Your task to perform on an android device: Do I have any events this weekend? Image 0: 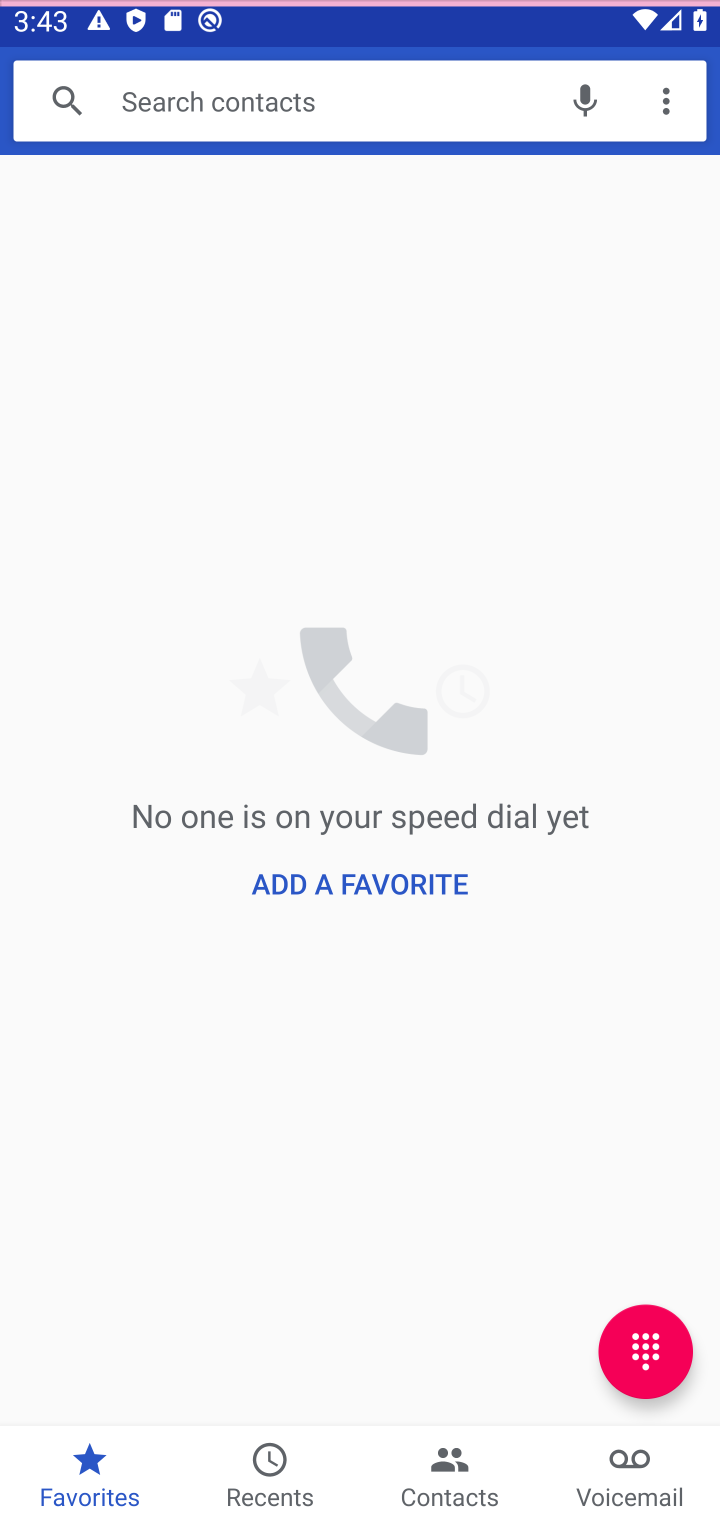
Step 0: press back button
Your task to perform on an android device: Do I have any events this weekend? Image 1: 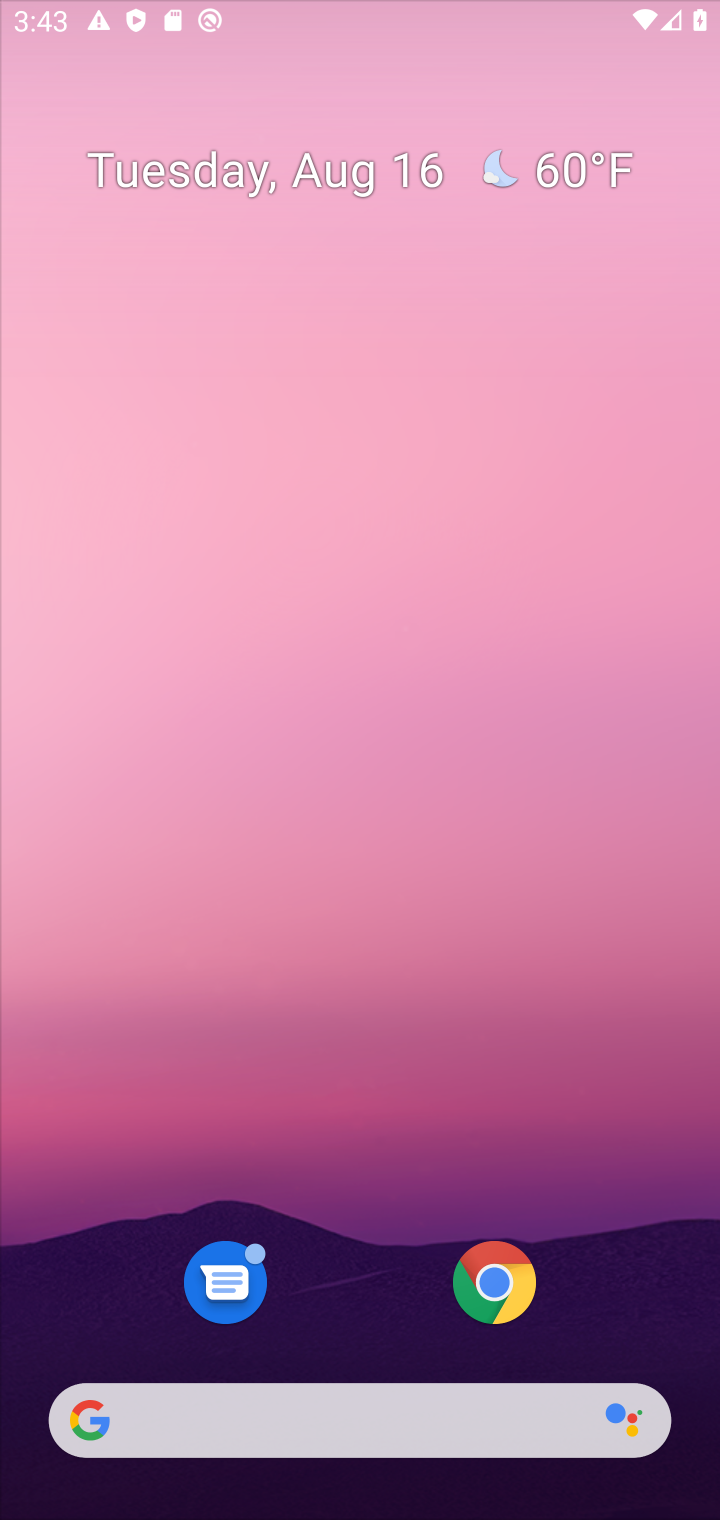
Step 1: press back button
Your task to perform on an android device: Do I have any events this weekend? Image 2: 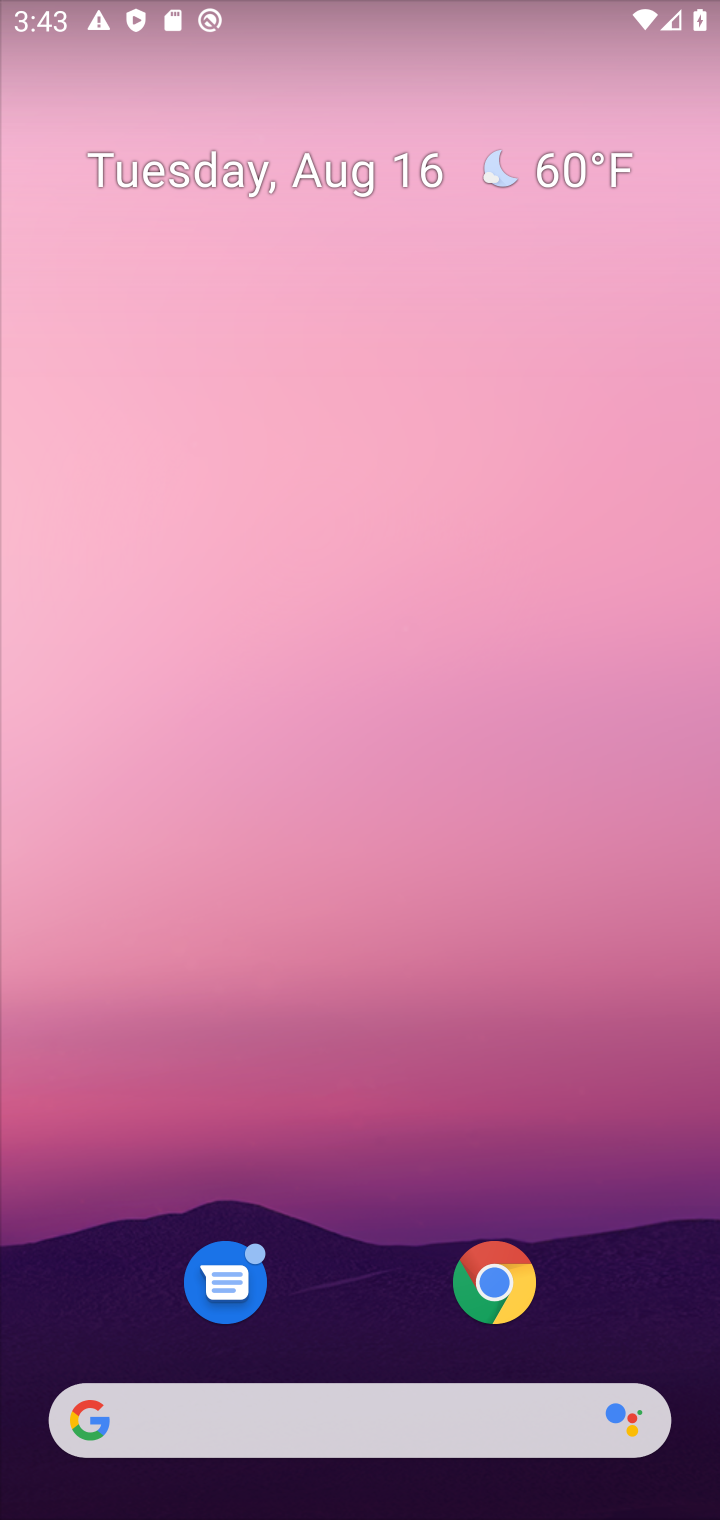
Step 2: drag from (313, 1153) to (451, 28)
Your task to perform on an android device: Do I have any events this weekend? Image 3: 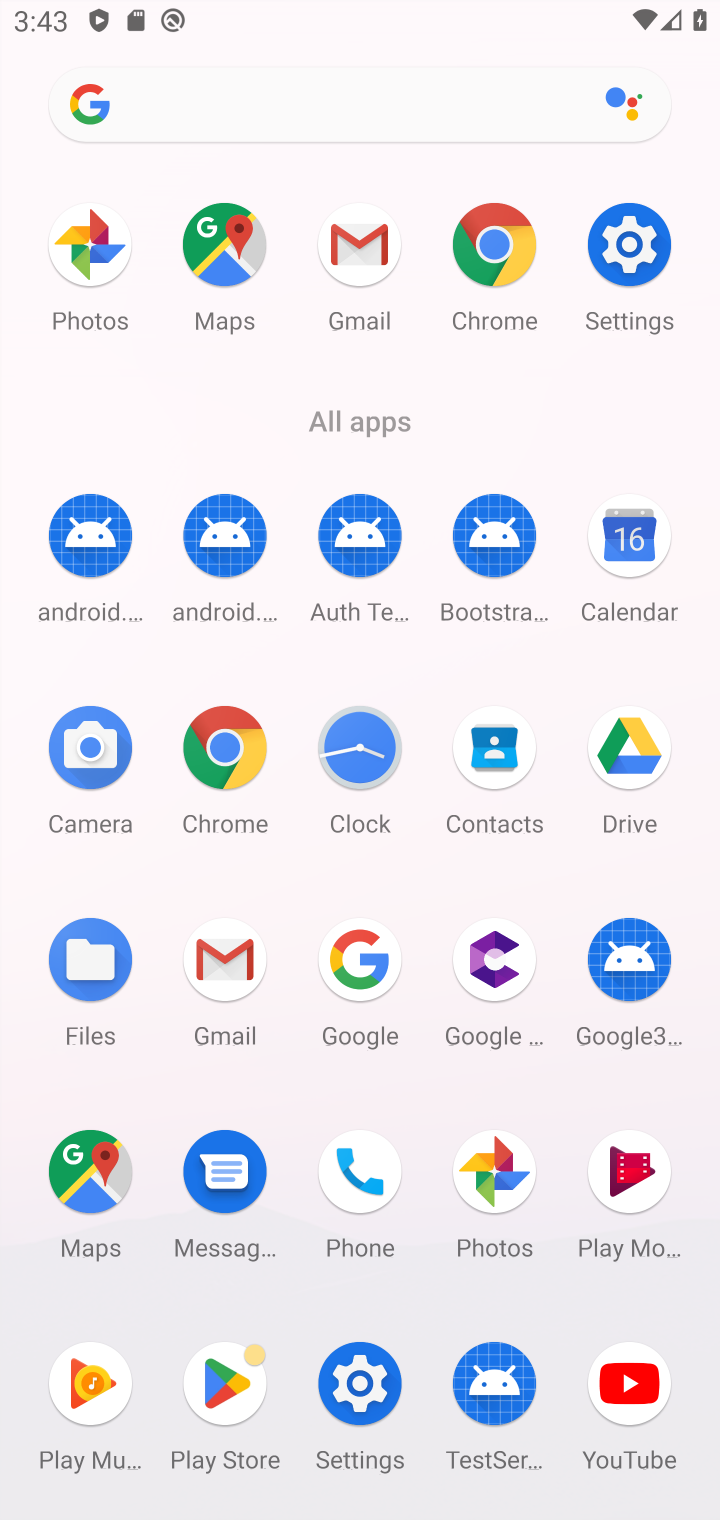
Step 3: click (649, 564)
Your task to perform on an android device: Do I have any events this weekend? Image 4: 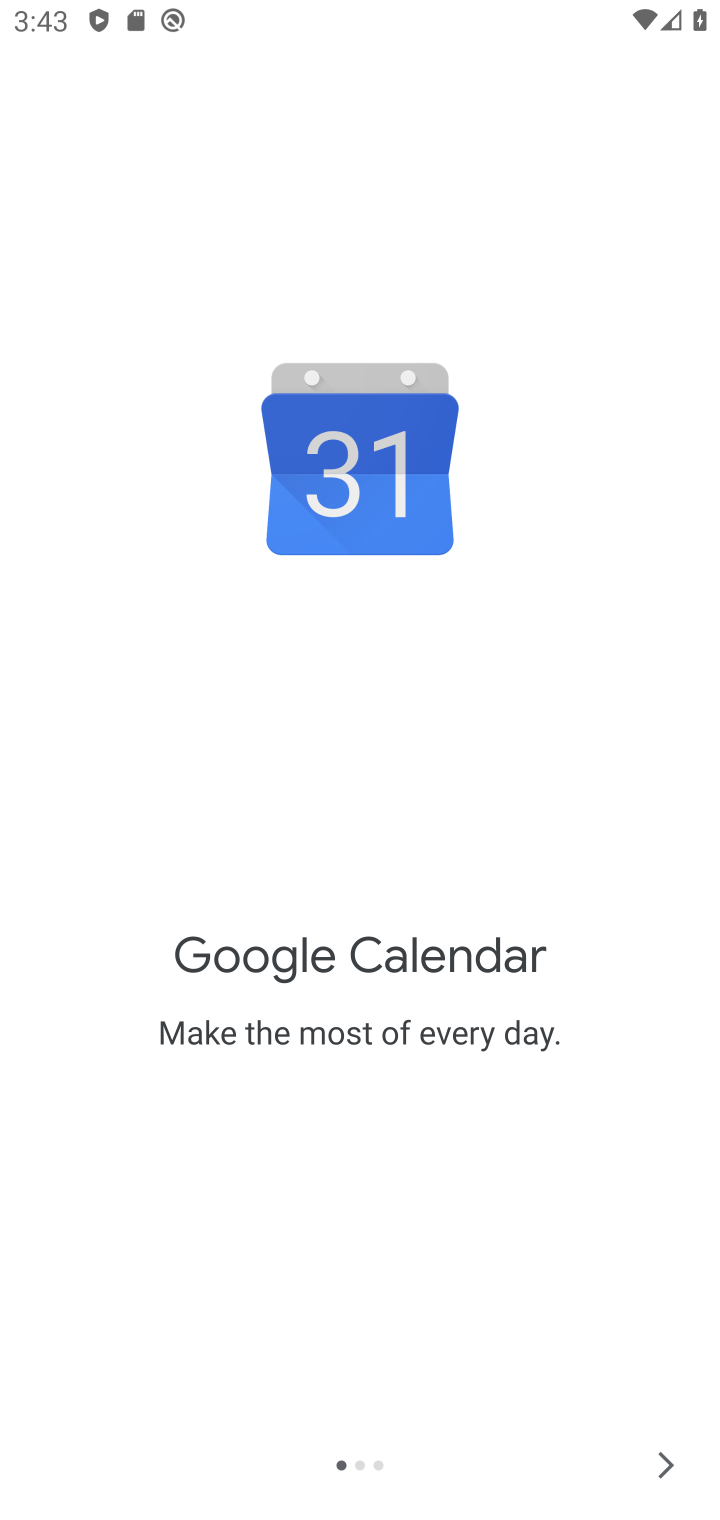
Step 4: click (658, 1446)
Your task to perform on an android device: Do I have any events this weekend? Image 5: 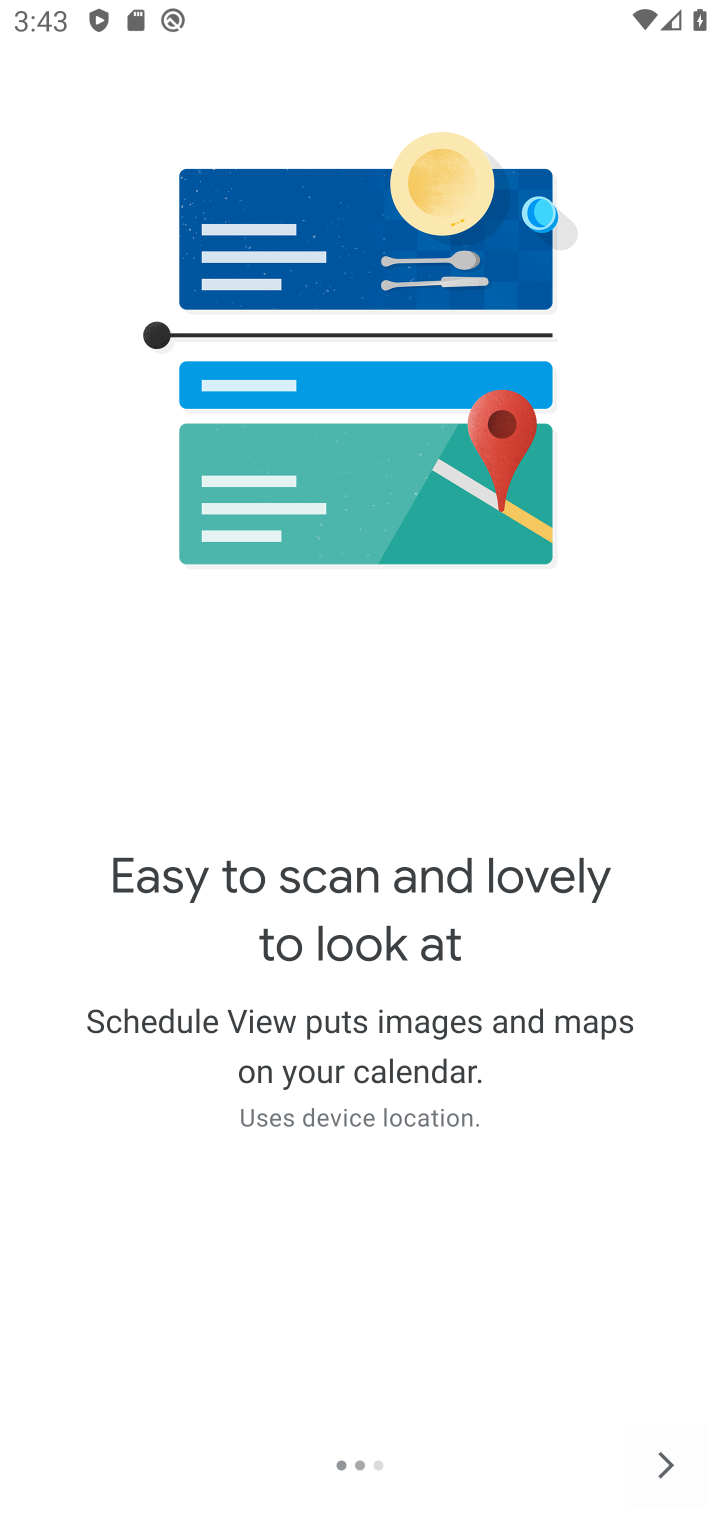
Step 5: click (658, 1446)
Your task to perform on an android device: Do I have any events this weekend? Image 6: 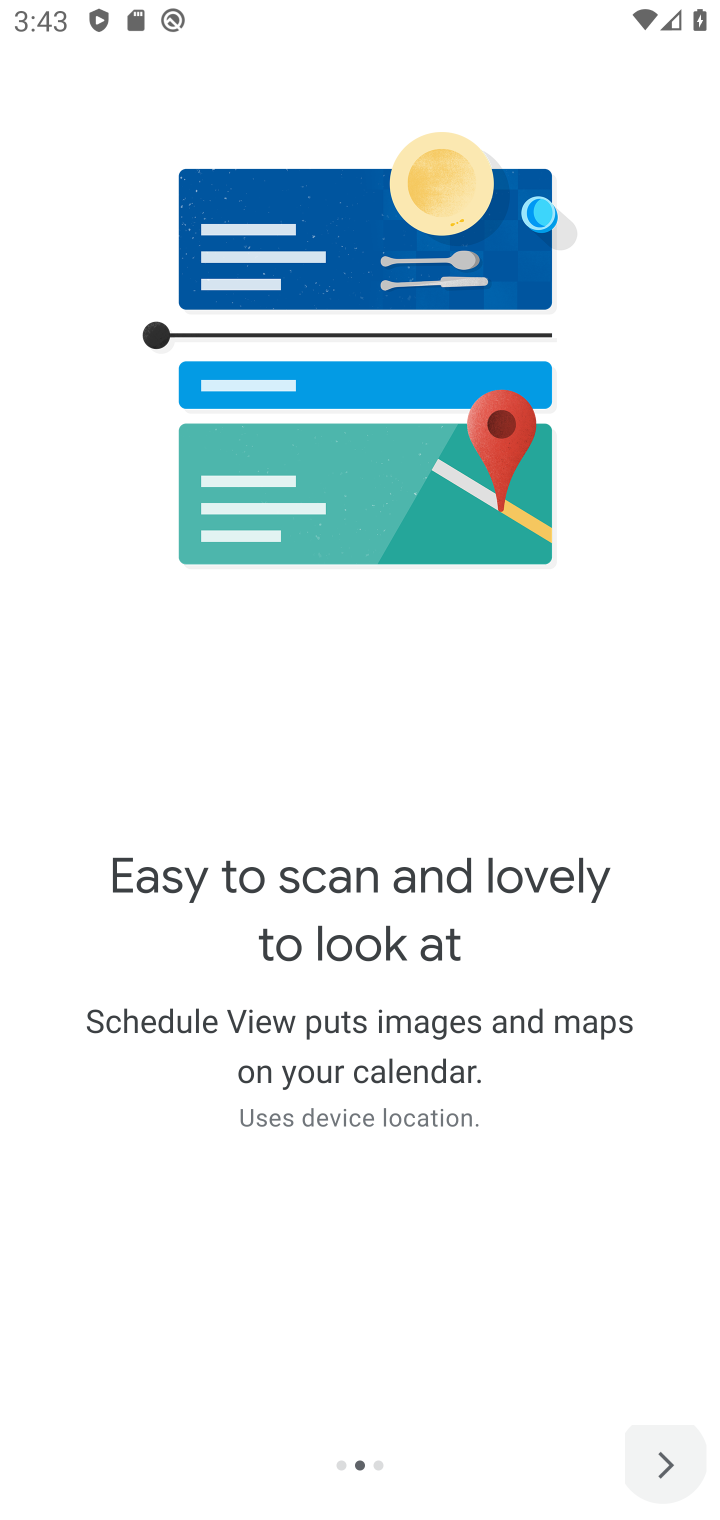
Step 6: click (658, 1446)
Your task to perform on an android device: Do I have any events this weekend? Image 7: 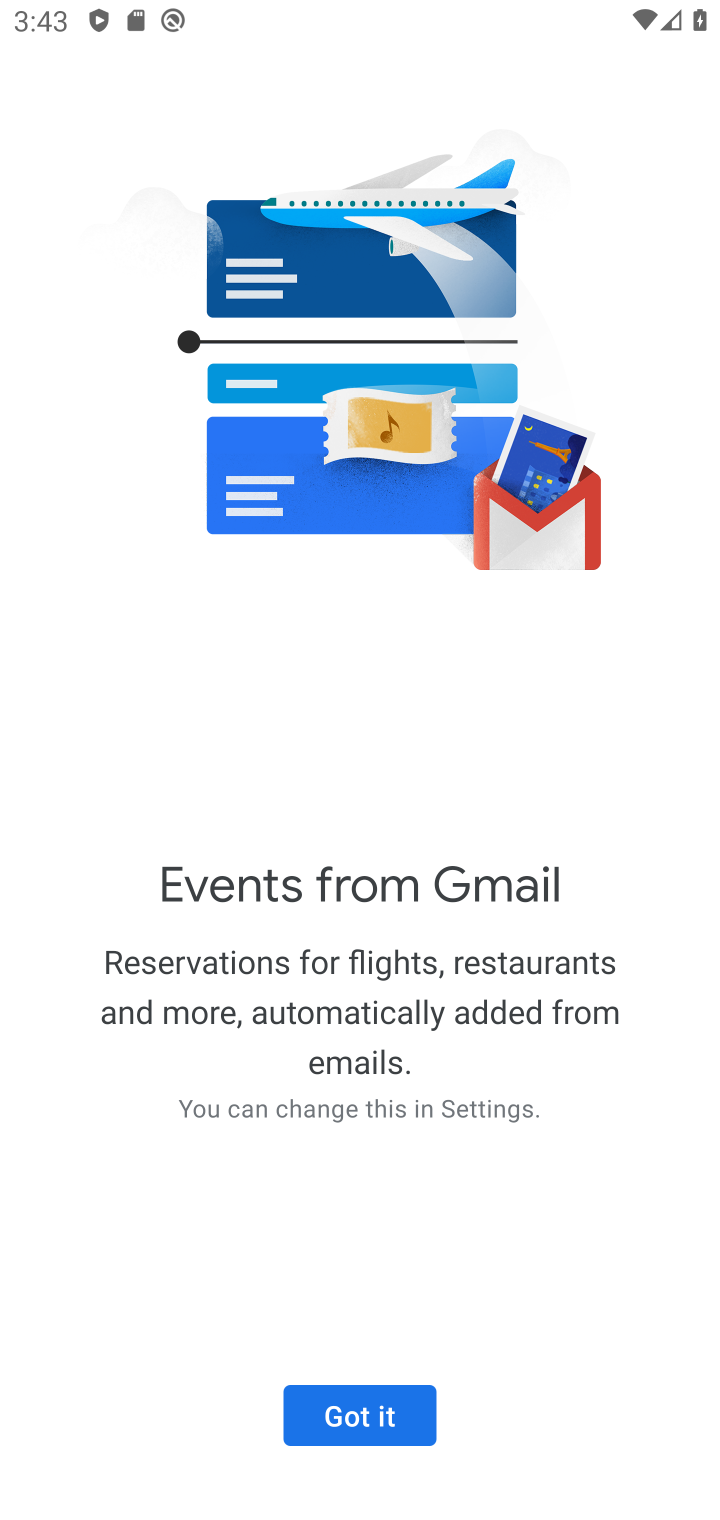
Step 7: click (332, 1415)
Your task to perform on an android device: Do I have any events this weekend? Image 8: 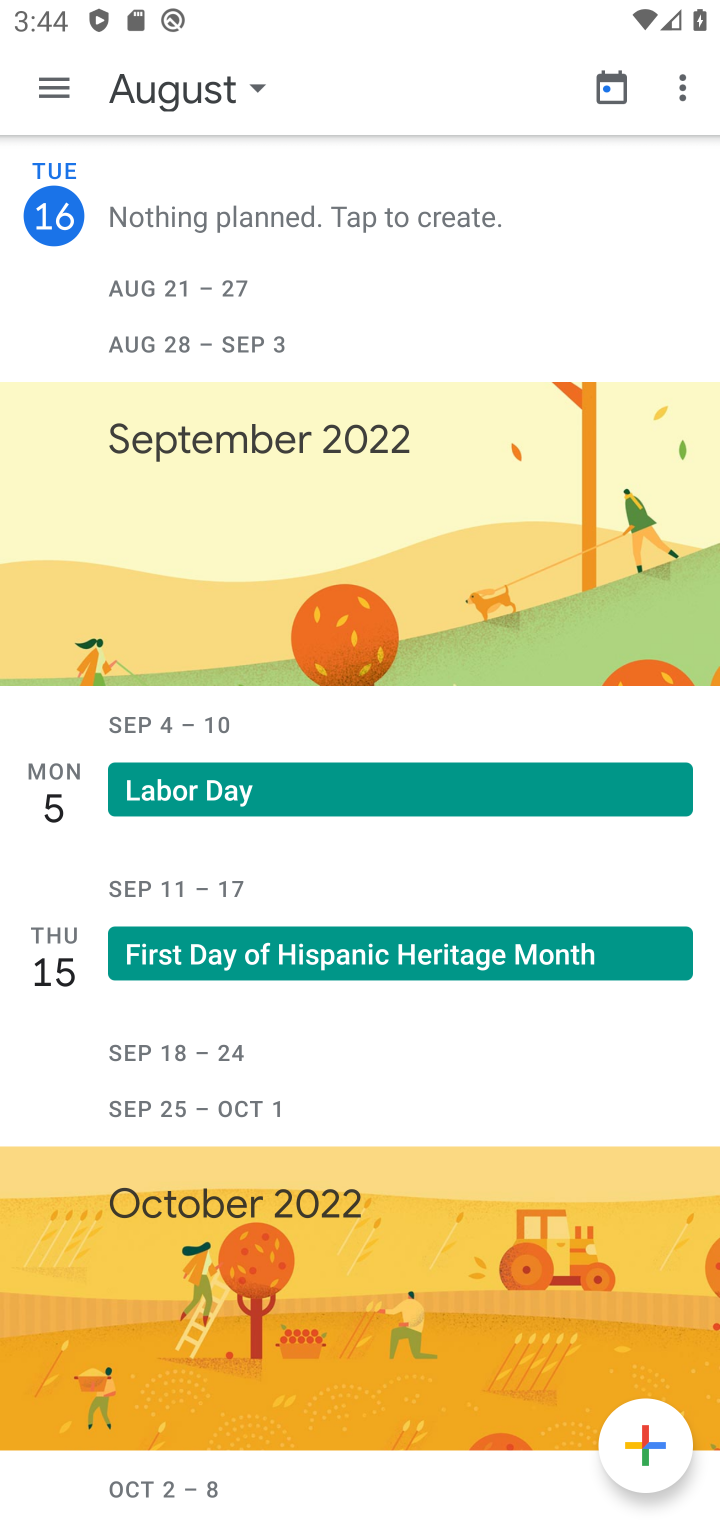
Step 8: click (265, 89)
Your task to perform on an android device: Do I have any events this weekend? Image 9: 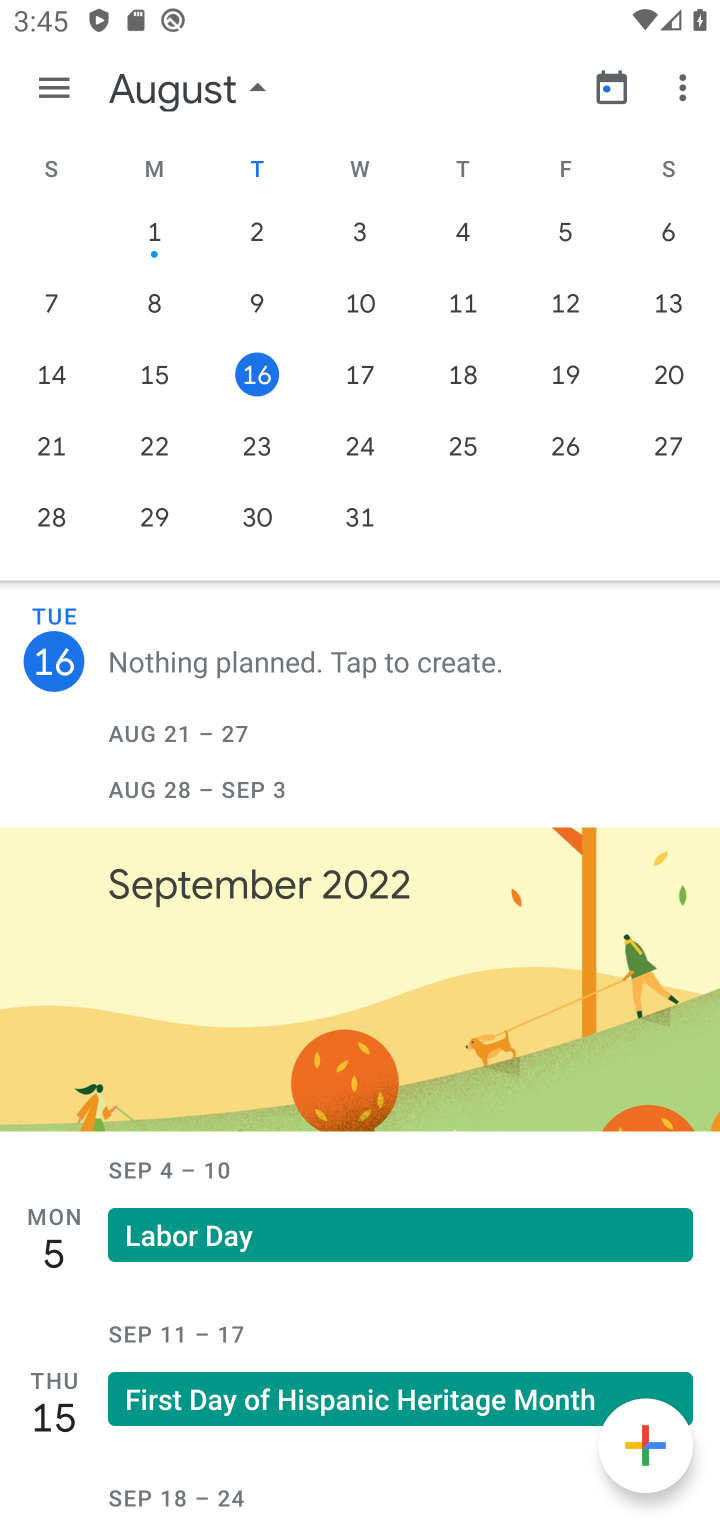
Step 9: press back button
Your task to perform on an android device: Do I have any events this weekend? Image 10: 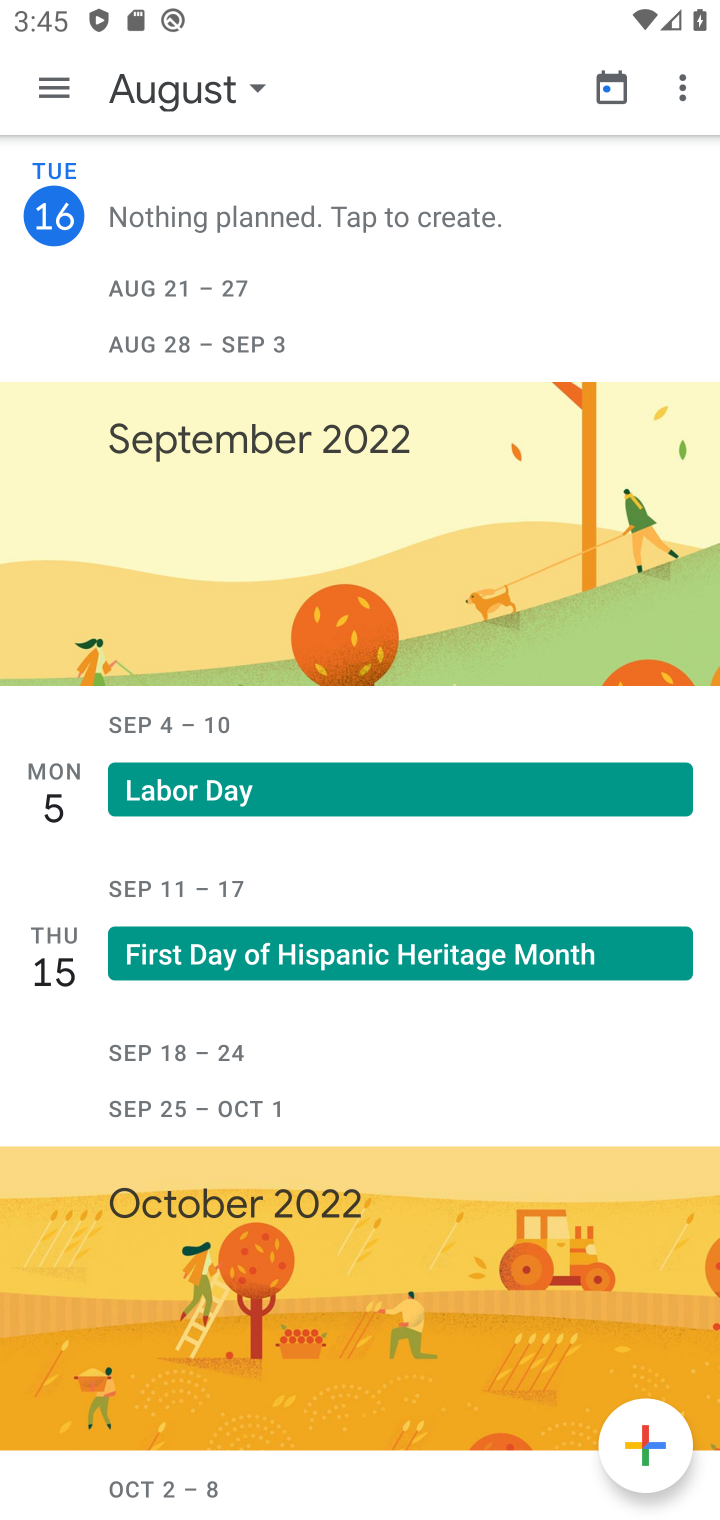
Step 10: click (253, 83)
Your task to perform on an android device: Do I have any events this weekend? Image 11: 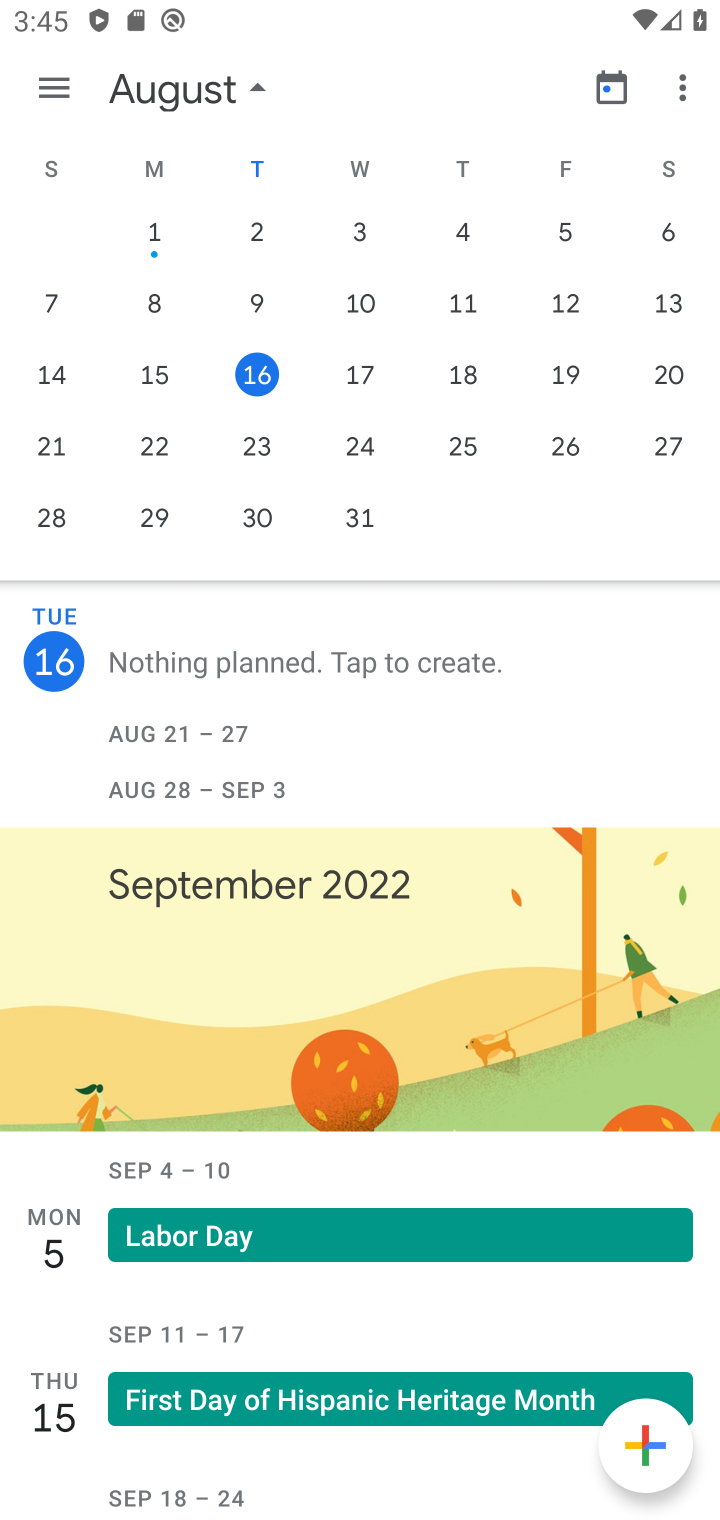
Step 11: click (666, 371)
Your task to perform on an android device: Do I have any events this weekend? Image 12: 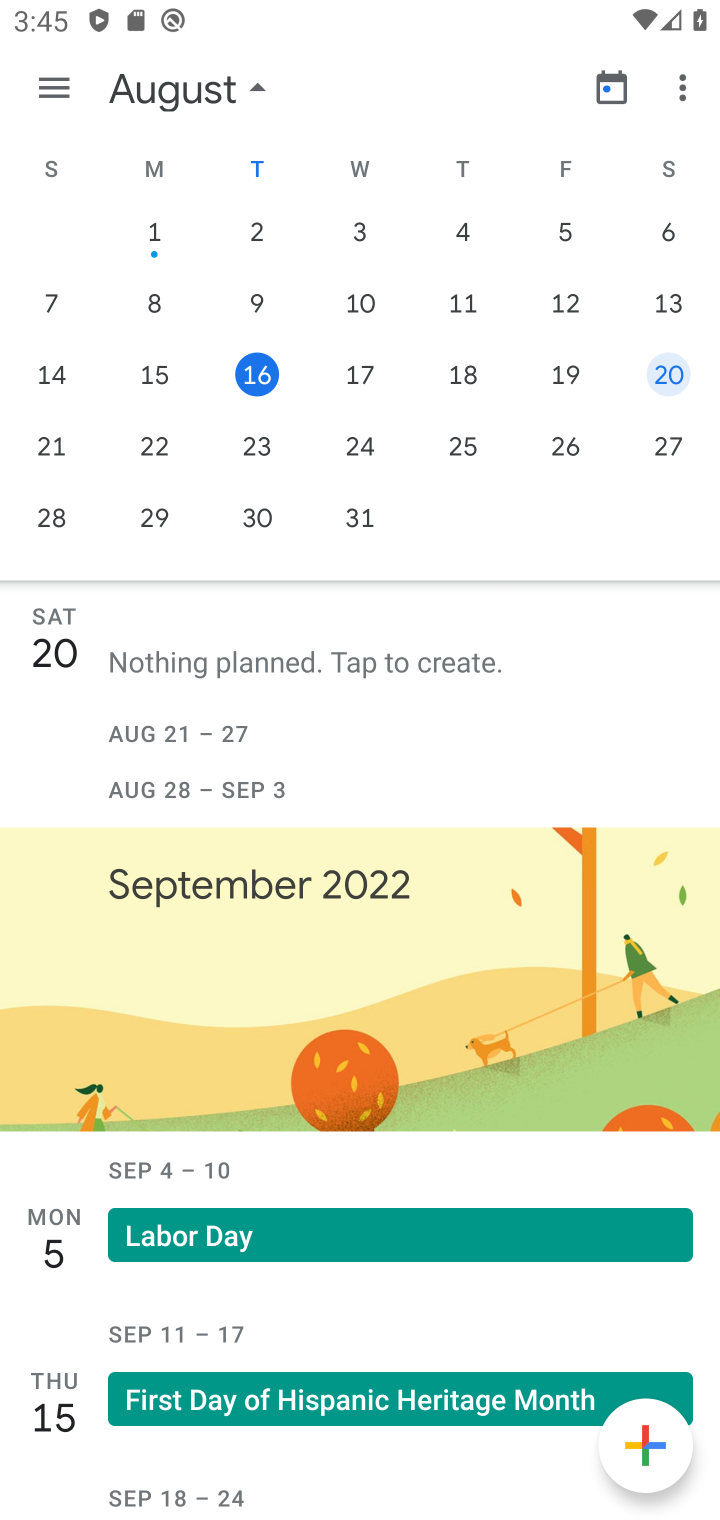
Step 12: task complete